Your task to perform on an android device: set default search engine in the chrome app Image 0: 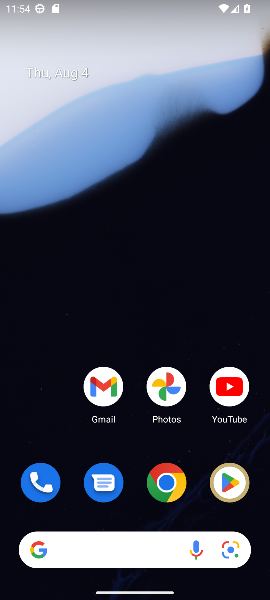
Step 0: click (161, 481)
Your task to perform on an android device: set default search engine in the chrome app Image 1: 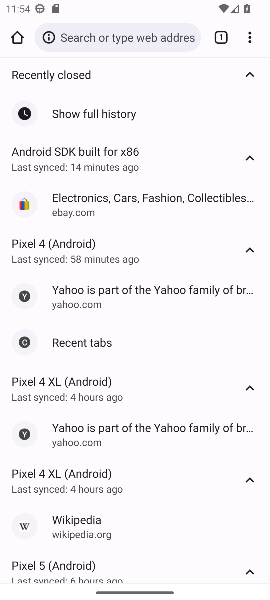
Step 1: click (246, 43)
Your task to perform on an android device: set default search engine in the chrome app Image 2: 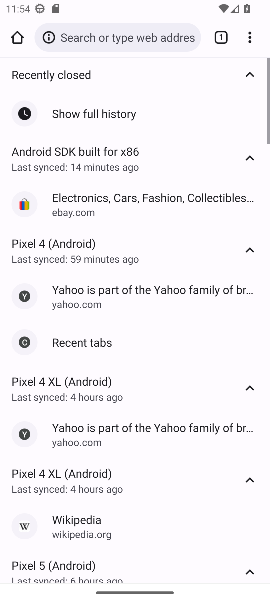
Step 2: click (252, 41)
Your task to perform on an android device: set default search engine in the chrome app Image 3: 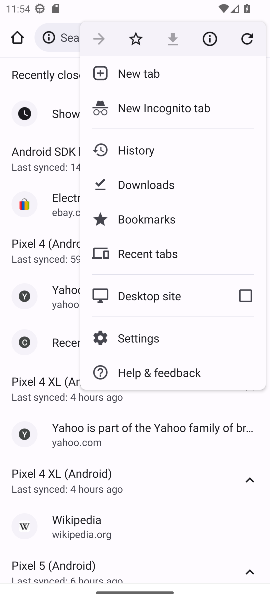
Step 3: click (138, 331)
Your task to perform on an android device: set default search engine in the chrome app Image 4: 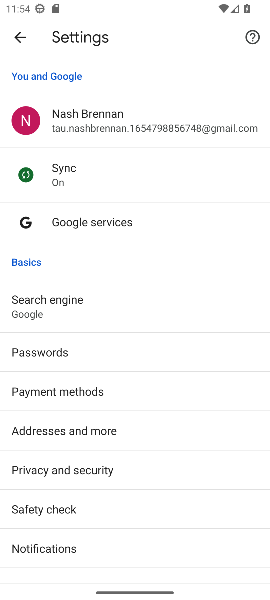
Step 4: click (123, 305)
Your task to perform on an android device: set default search engine in the chrome app Image 5: 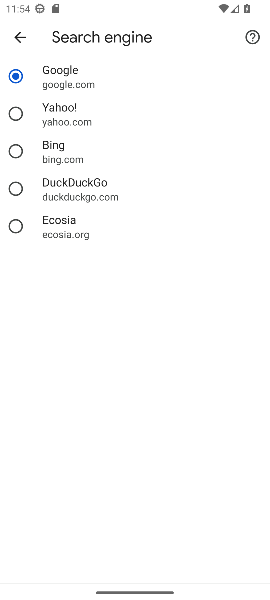
Step 5: task complete